Your task to perform on an android device: Open sound settings Image 0: 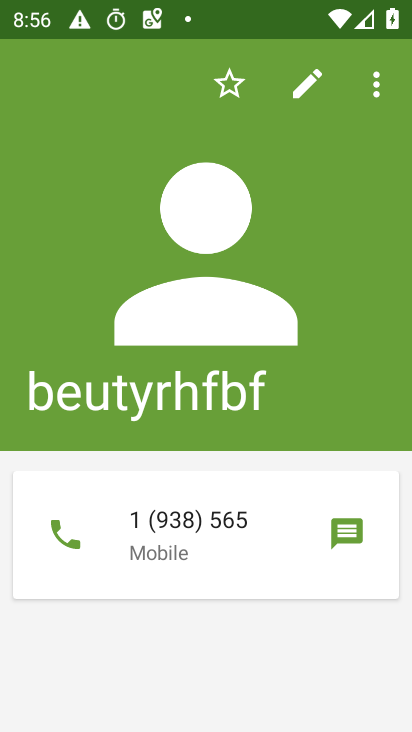
Step 0: press home button
Your task to perform on an android device: Open sound settings Image 1: 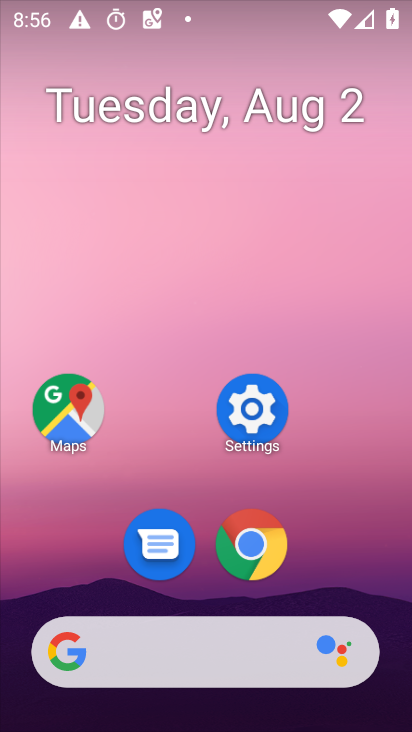
Step 1: click (253, 406)
Your task to perform on an android device: Open sound settings Image 2: 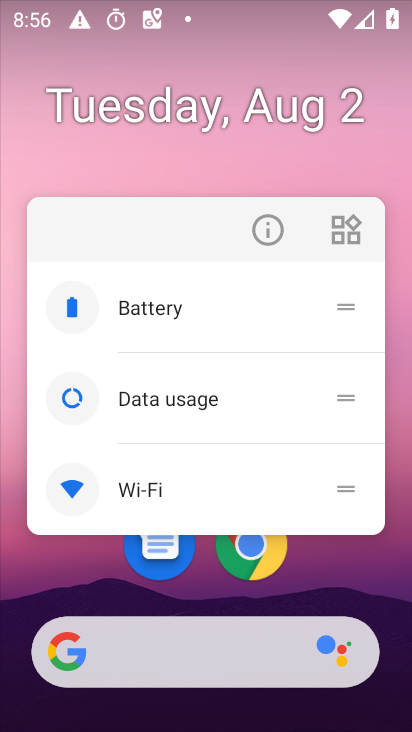
Step 2: click (373, 575)
Your task to perform on an android device: Open sound settings Image 3: 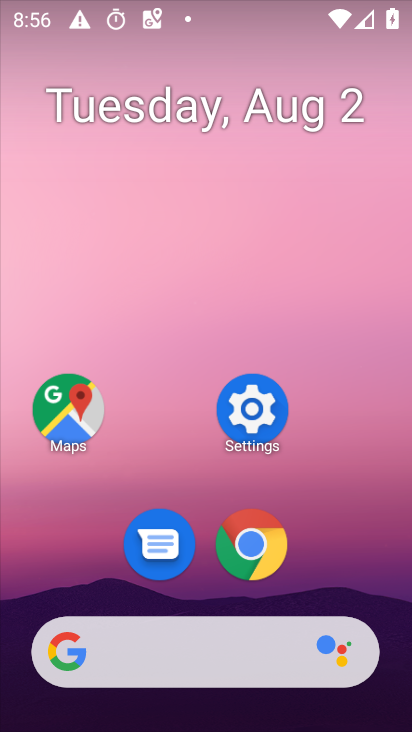
Step 3: click (248, 398)
Your task to perform on an android device: Open sound settings Image 4: 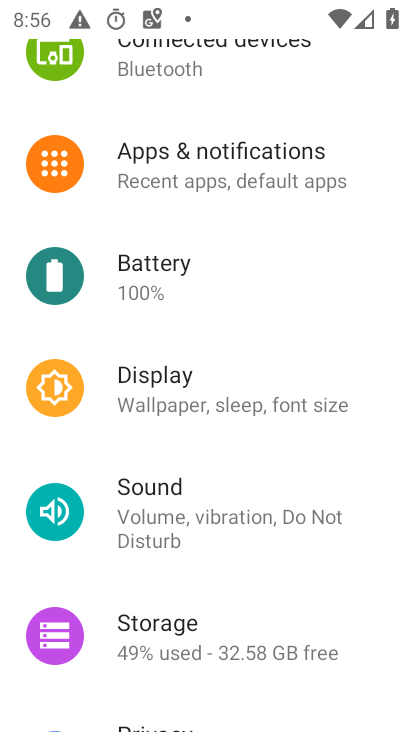
Step 4: click (165, 501)
Your task to perform on an android device: Open sound settings Image 5: 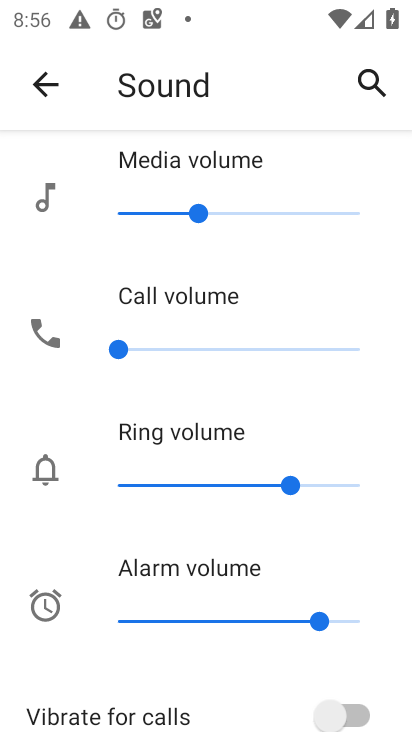
Step 5: task complete